Your task to perform on an android device: open app "DoorDash - Food Delivery" Image 0: 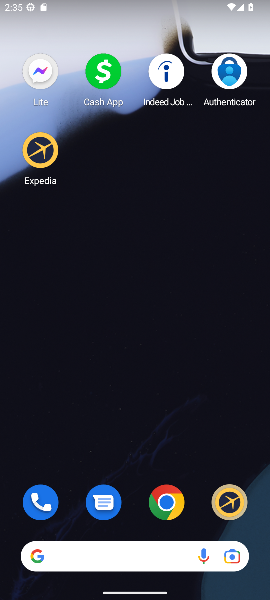
Step 0: click (118, 527)
Your task to perform on an android device: open app "DoorDash - Food Delivery" Image 1: 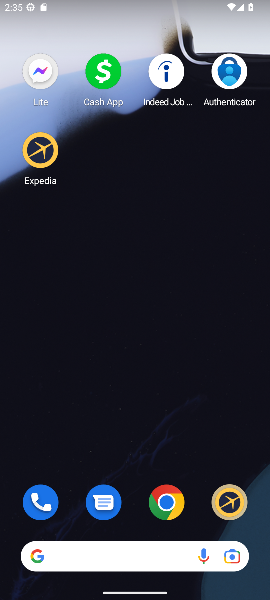
Step 1: drag from (118, 527) to (84, 7)
Your task to perform on an android device: open app "DoorDash - Food Delivery" Image 2: 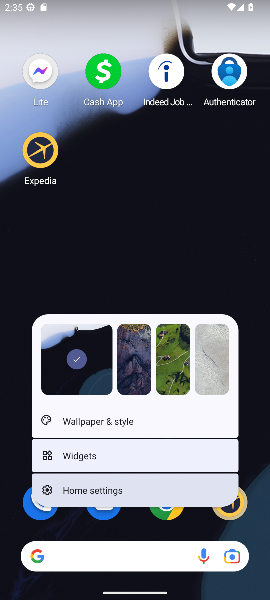
Step 2: click (116, 214)
Your task to perform on an android device: open app "DoorDash - Food Delivery" Image 3: 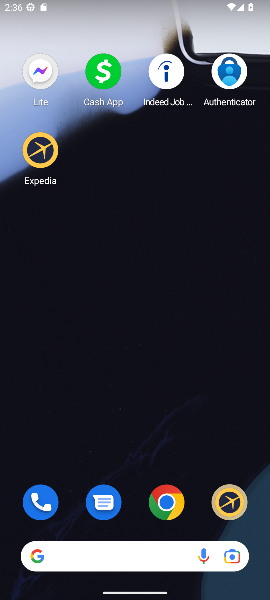
Step 3: drag from (132, 395) to (181, 26)
Your task to perform on an android device: open app "DoorDash - Food Delivery" Image 4: 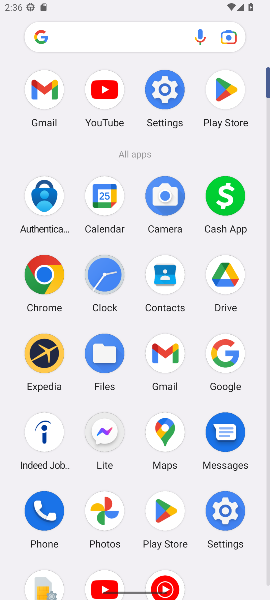
Step 4: click (214, 87)
Your task to perform on an android device: open app "DoorDash - Food Delivery" Image 5: 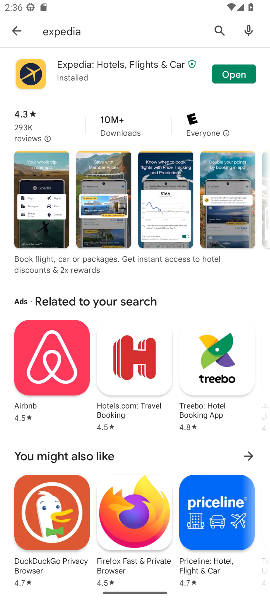
Step 5: click (214, 34)
Your task to perform on an android device: open app "DoorDash - Food Delivery" Image 6: 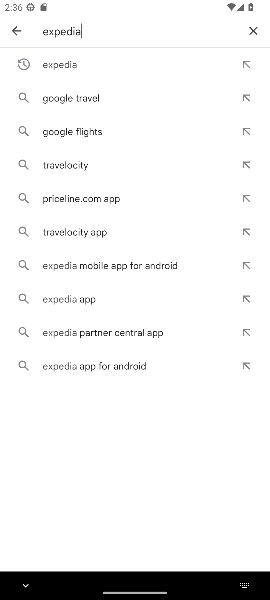
Step 6: click (248, 32)
Your task to perform on an android device: open app "DoorDash - Food Delivery" Image 7: 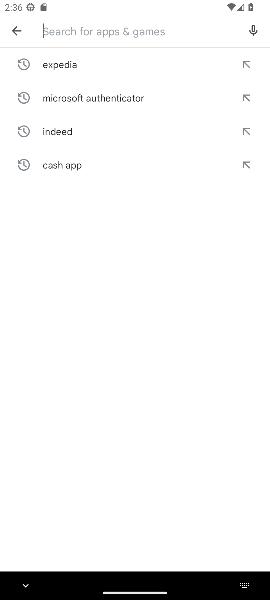
Step 7: type "doordash"
Your task to perform on an android device: open app "DoorDash - Food Delivery" Image 8: 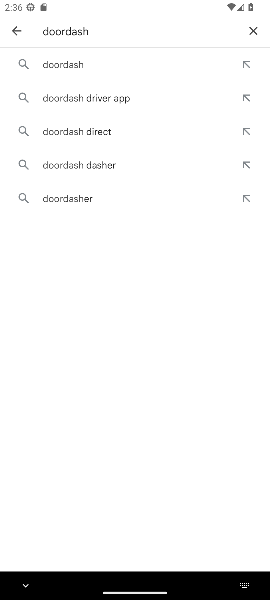
Step 8: click (142, 62)
Your task to perform on an android device: open app "DoorDash - Food Delivery" Image 9: 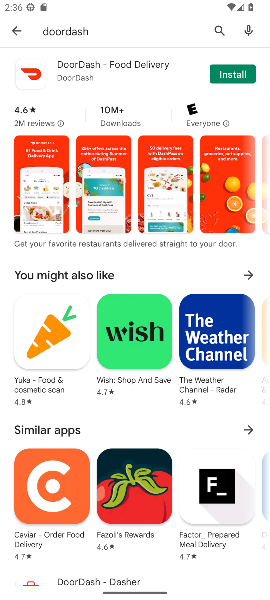
Step 9: click (211, 73)
Your task to perform on an android device: open app "DoorDash - Food Delivery" Image 10: 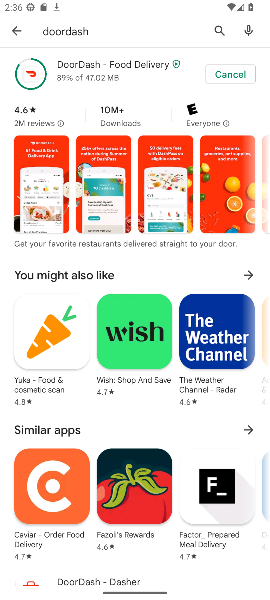
Step 10: task complete